Your task to perform on an android device: make emails show in primary in the gmail app Image 0: 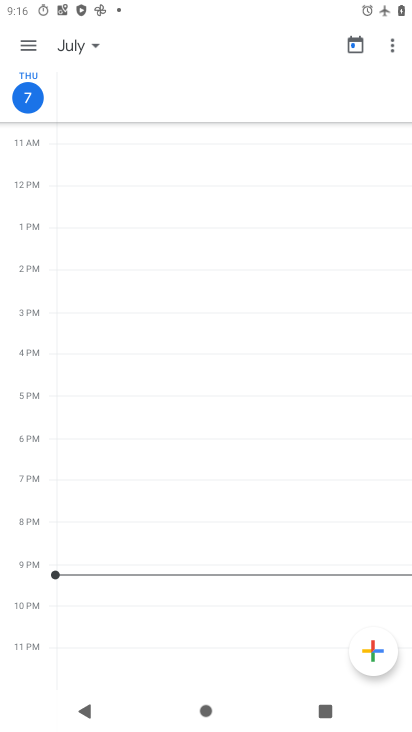
Step 0: press home button
Your task to perform on an android device: make emails show in primary in the gmail app Image 1: 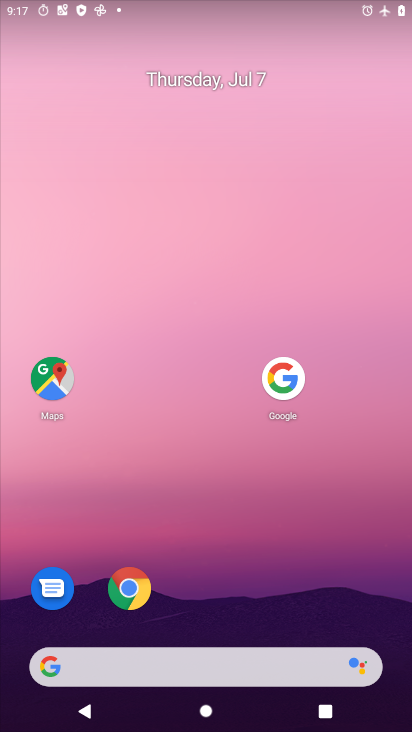
Step 1: drag from (127, 598) to (246, 183)
Your task to perform on an android device: make emails show in primary in the gmail app Image 2: 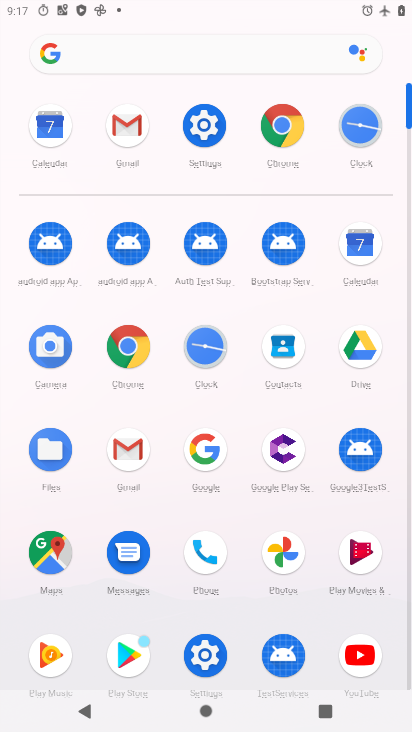
Step 2: click (118, 133)
Your task to perform on an android device: make emails show in primary in the gmail app Image 3: 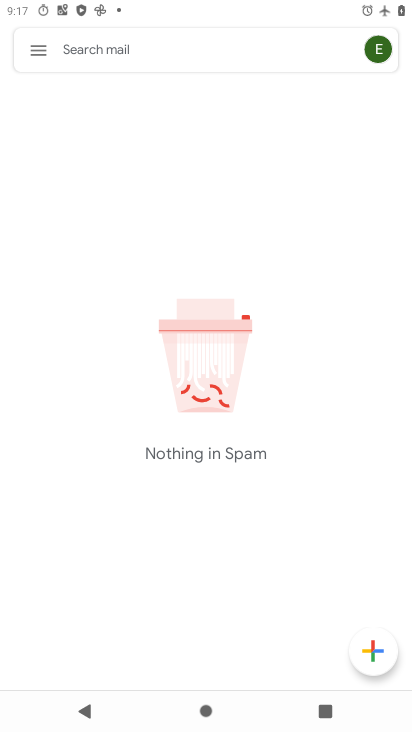
Step 3: click (39, 50)
Your task to perform on an android device: make emails show in primary in the gmail app Image 4: 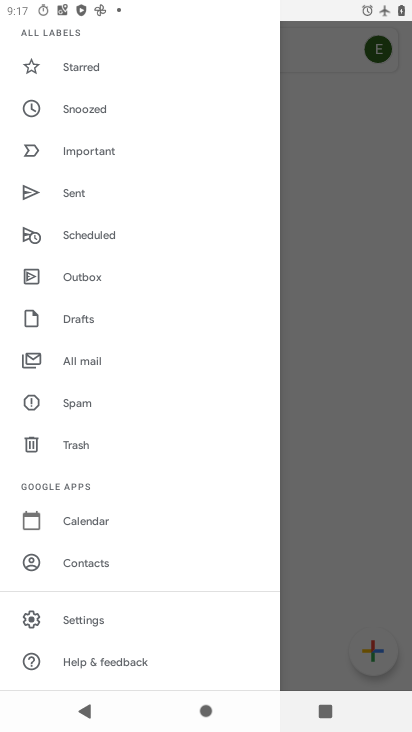
Step 4: click (90, 623)
Your task to perform on an android device: make emails show in primary in the gmail app Image 5: 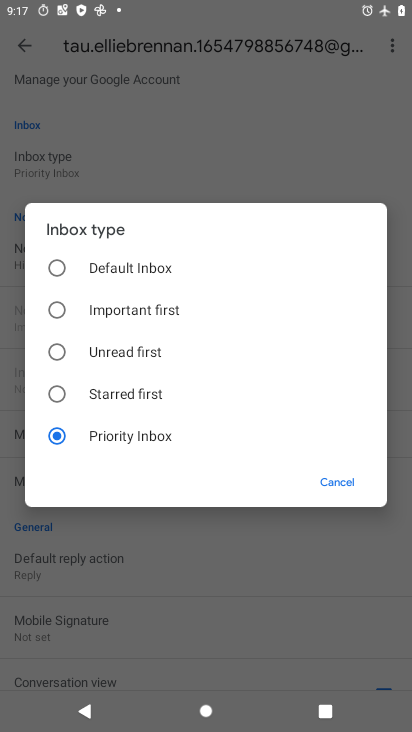
Step 5: click (337, 494)
Your task to perform on an android device: make emails show in primary in the gmail app Image 6: 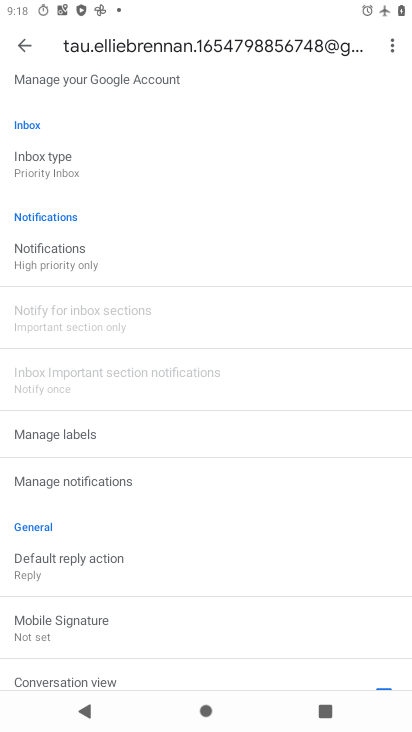
Step 6: task complete